Your task to perform on an android device: toggle data saver in the chrome app Image 0: 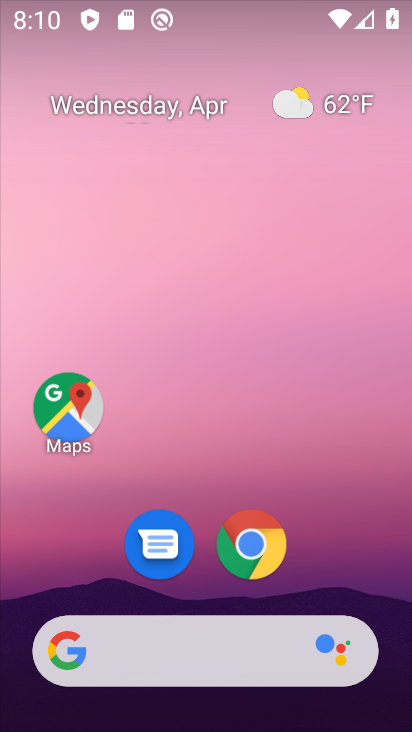
Step 0: click (239, 554)
Your task to perform on an android device: toggle data saver in the chrome app Image 1: 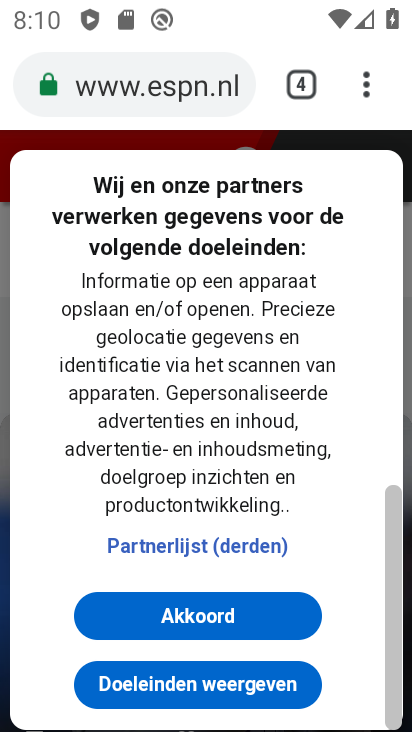
Step 1: drag from (361, 88) to (136, 587)
Your task to perform on an android device: toggle data saver in the chrome app Image 2: 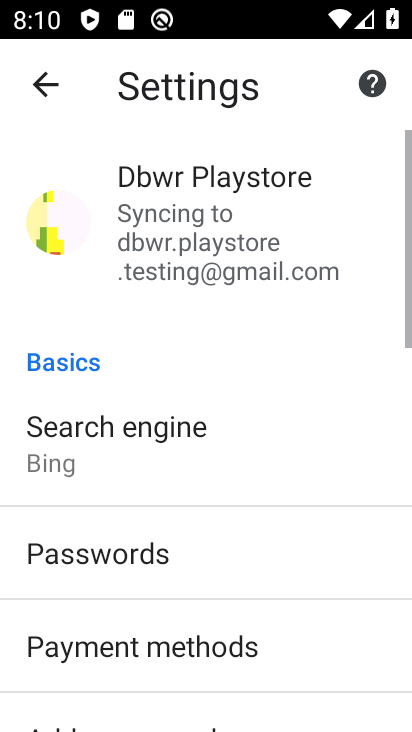
Step 2: drag from (312, 616) to (248, 173)
Your task to perform on an android device: toggle data saver in the chrome app Image 3: 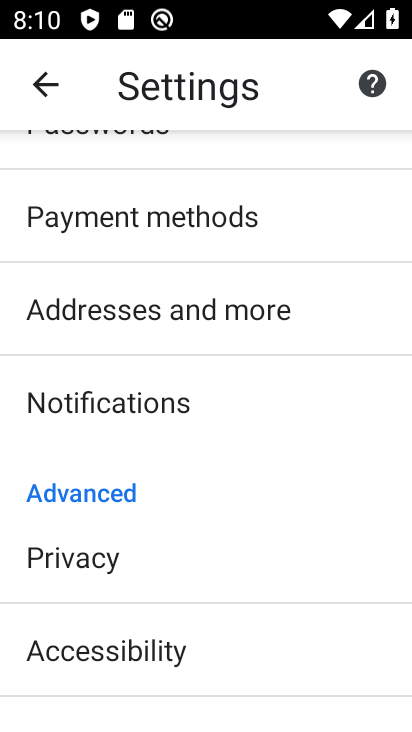
Step 3: drag from (205, 654) to (305, 232)
Your task to perform on an android device: toggle data saver in the chrome app Image 4: 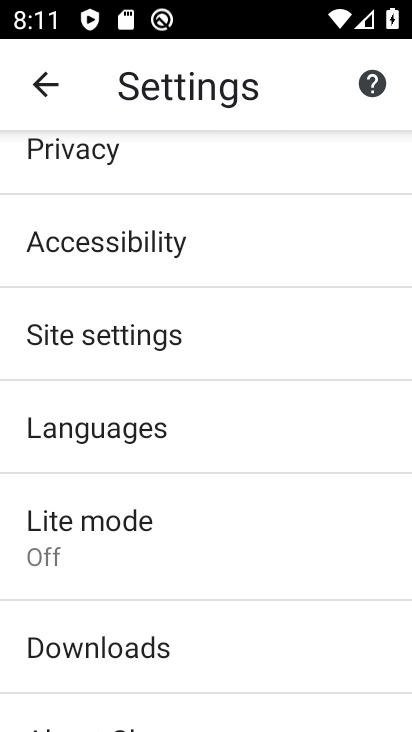
Step 4: click (75, 517)
Your task to perform on an android device: toggle data saver in the chrome app Image 5: 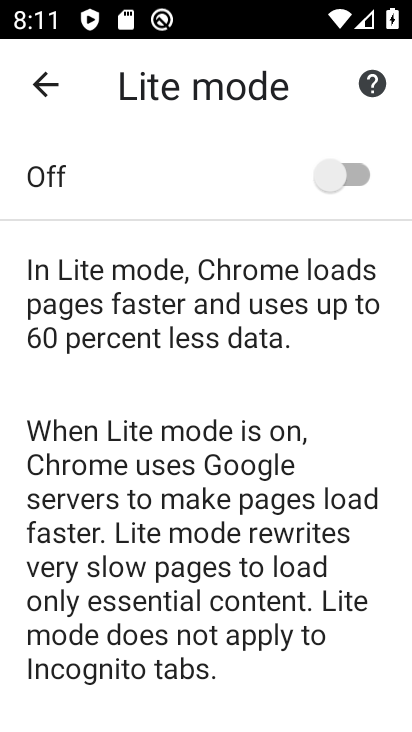
Step 5: click (348, 181)
Your task to perform on an android device: toggle data saver in the chrome app Image 6: 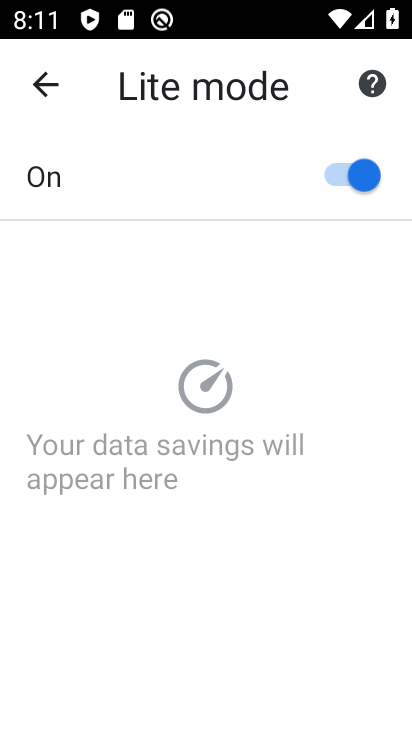
Step 6: task complete